Your task to perform on an android device: Open privacy settings Image 0: 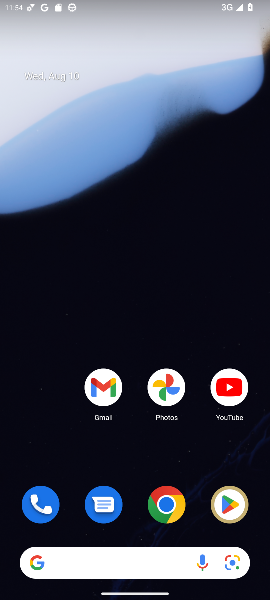
Step 0: press home button
Your task to perform on an android device: Open privacy settings Image 1: 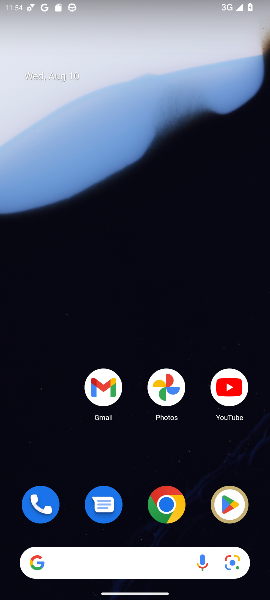
Step 1: drag from (150, 521) to (153, 232)
Your task to perform on an android device: Open privacy settings Image 2: 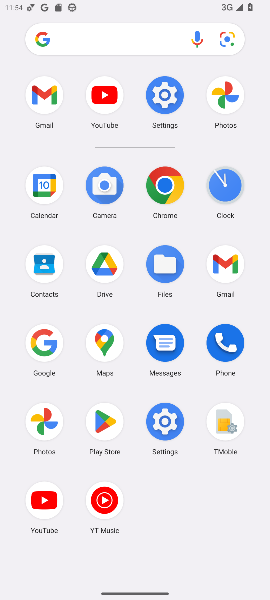
Step 2: click (172, 105)
Your task to perform on an android device: Open privacy settings Image 3: 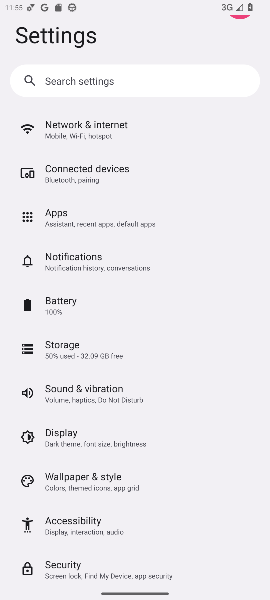
Step 3: drag from (192, 467) to (236, 136)
Your task to perform on an android device: Open privacy settings Image 4: 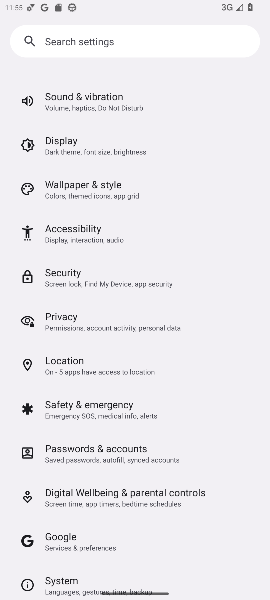
Step 4: click (65, 329)
Your task to perform on an android device: Open privacy settings Image 5: 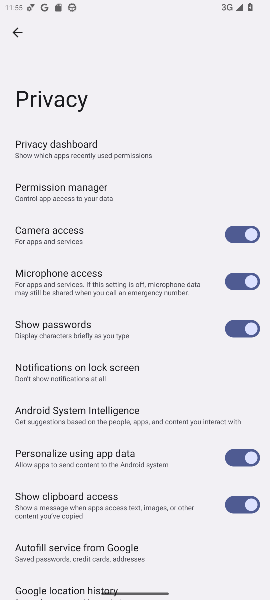
Step 5: task complete